Your task to perform on an android device: turn off wifi Image 0: 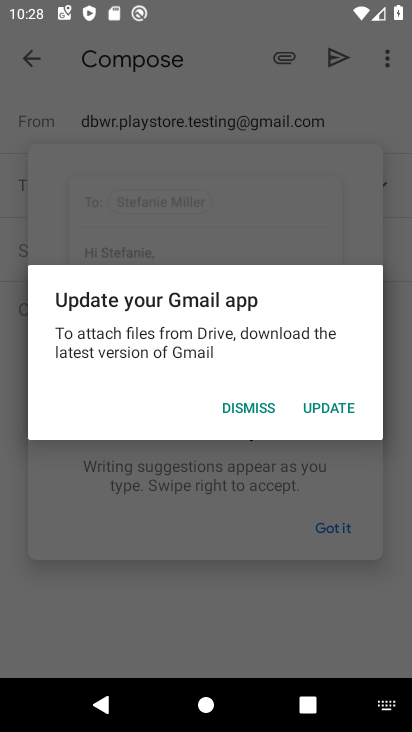
Step 0: press home button
Your task to perform on an android device: turn off wifi Image 1: 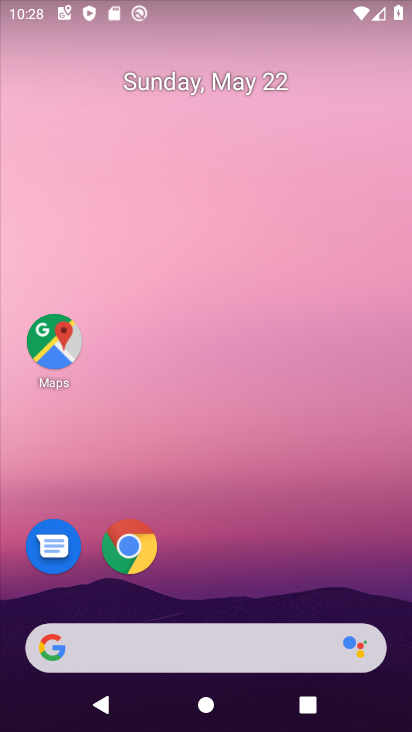
Step 1: drag from (196, 585) to (150, 14)
Your task to perform on an android device: turn off wifi Image 2: 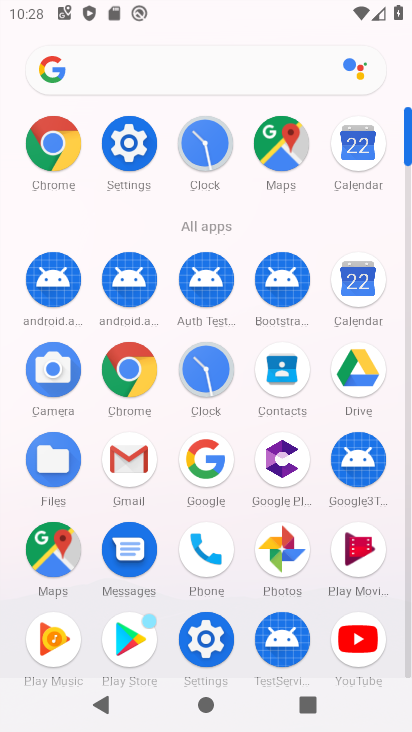
Step 2: click (135, 159)
Your task to perform on an android device: turn off wifi Image 3: 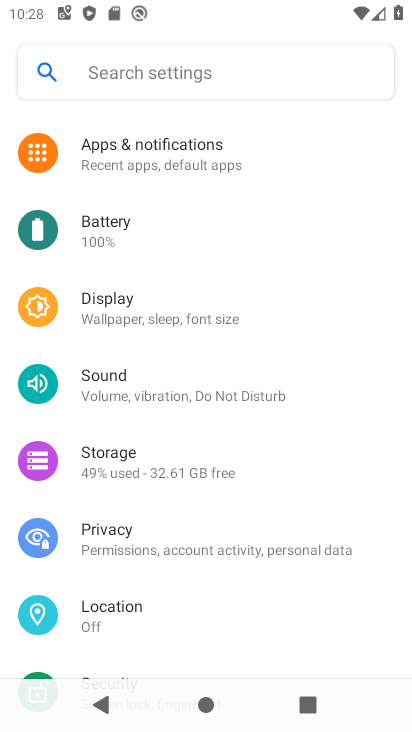
Step 3: drag from (265, 225) to (238, 604)
Your task to perform on an android device: turn off wifi Image 4: 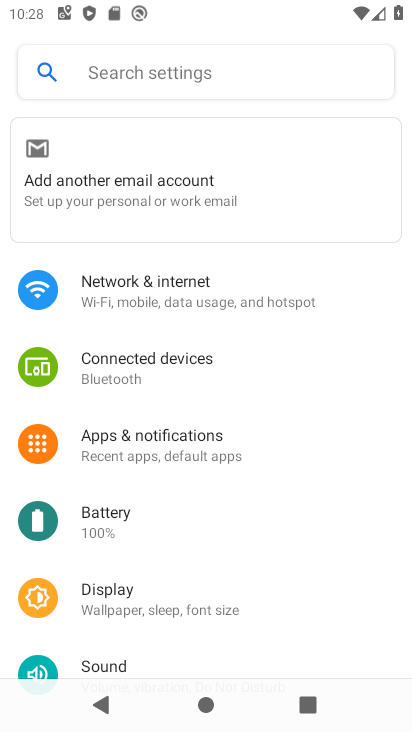
Step 4: click (181, 300)
Your task to perform on an android device: turn off wifi Image 5: 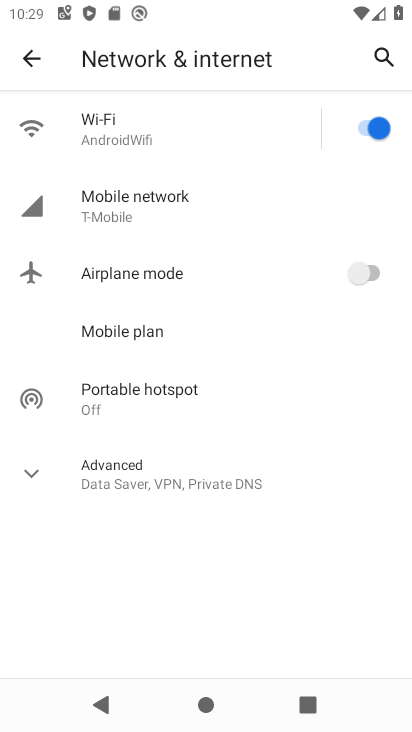
Step 5: click (352, 130)
Your task to perform on an android device: turn off wifi Image 6: 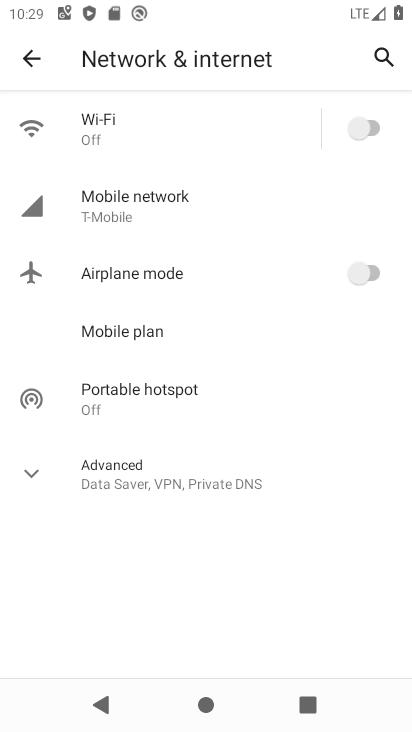
Step 6: task complete